Your task to perform on an android device: Open Youtube and go to "Your channel" Image 0: 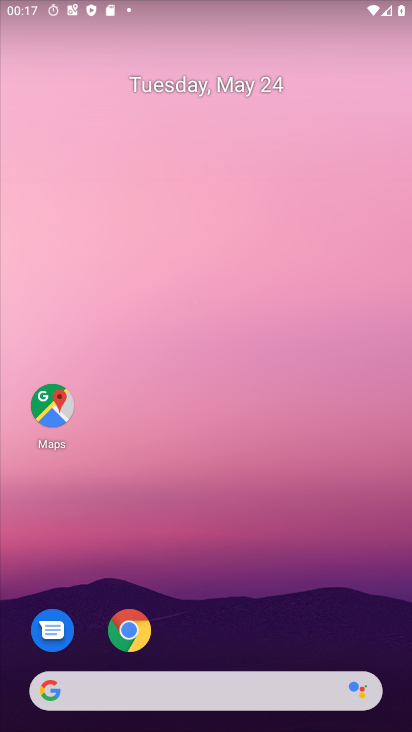
Step 0: drag from (254, 650) to (300, 32)
Your task to perform on an android device: Open Youtube and go to "Your channel" Image 1: 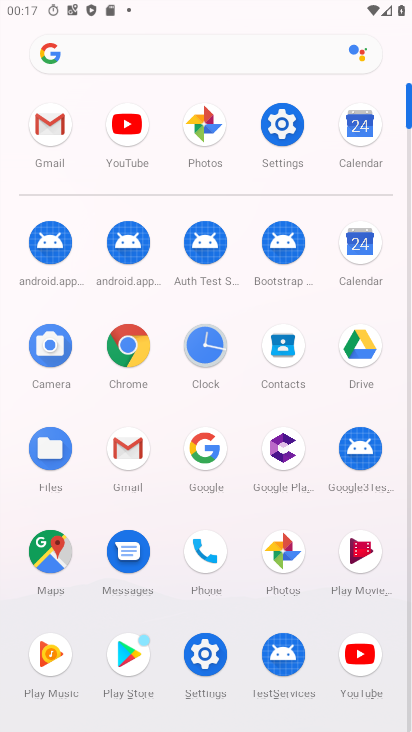
Step 1: click (357, 655)
Your task to perform on an android device: Open Youtube and go to "Your channel" Image 2: 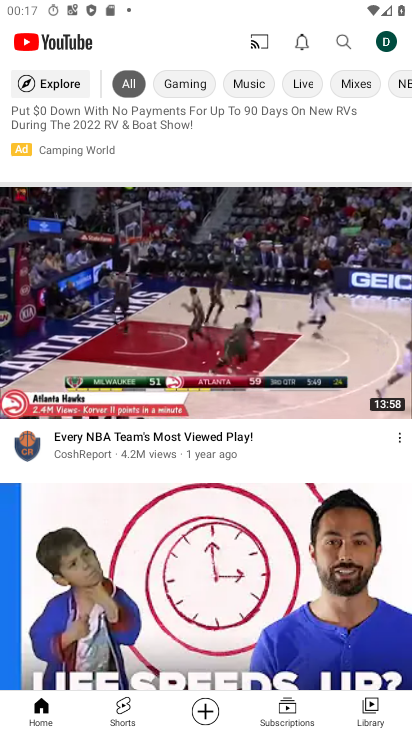
Step 2: click (386, 42)
Your task to perform on an android device: Open Youtube and go to "Your channel" Image 3: 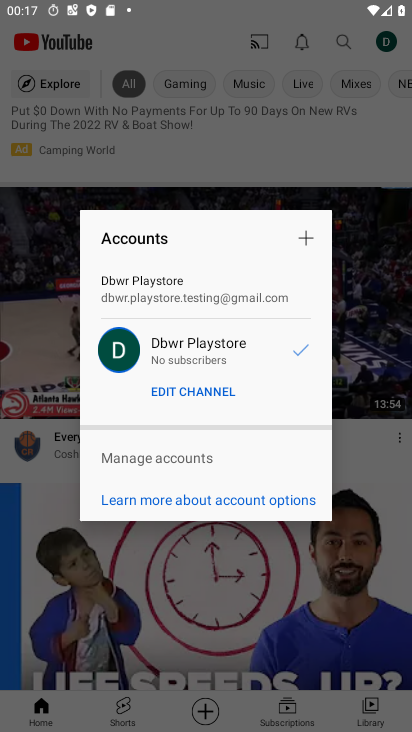
Step 3: click (387, 40)
Your task to perform on an android device: Open Youtube and go to "Your channel" Image 4: 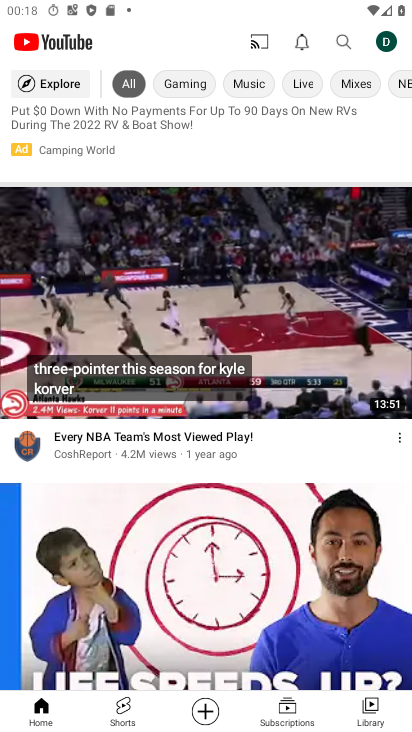
Step 4: click (389, 45)
Your task to perform on an android device: Open Youtube and go to "Your channel" Image 5: 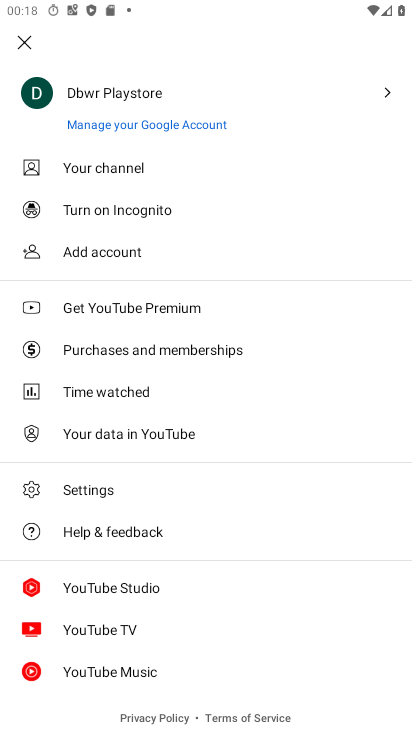
Step 5: click (114, 170)
Your task to perform on an android device: Open Youtube and go to "Your channel" Image 6: 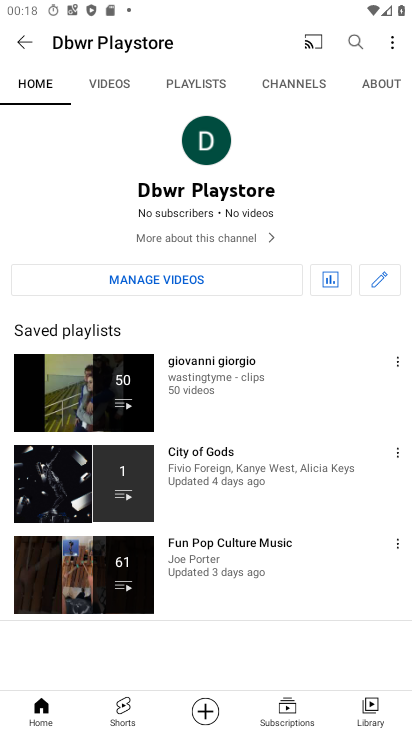
Step 6: task complete